Your task to perform on an android device: Go to display settings Image 0: 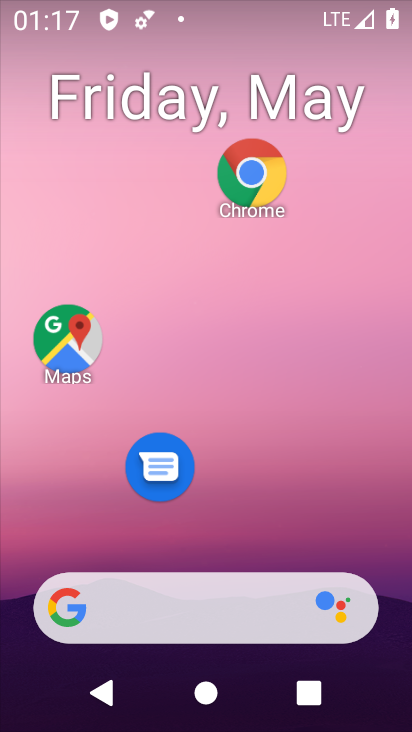
Step 0: drag from (262, 648) to (301, 112)
Your task to perform on an android device: Go to display settings Image 1: 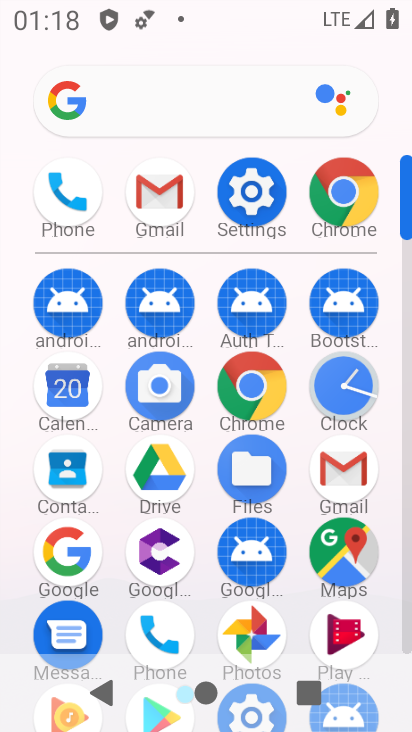
Step 1: click (250, 210)
Your task to perform on an android device: Go to display settings Image 2: 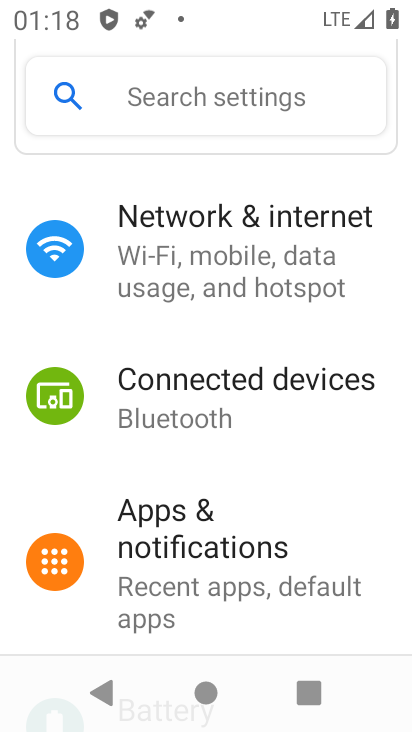
Step 2: drag from (257, 479) to (280, 301)
Your task to perform on an android device: Go to display settings Image 3: 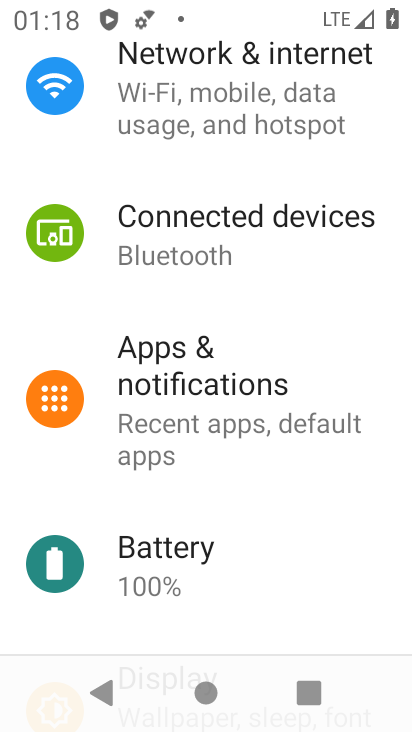
Step 3: drag from (219, 515) to (242, 336)
Your task to perform on an android device: Go to display settings Image 4: 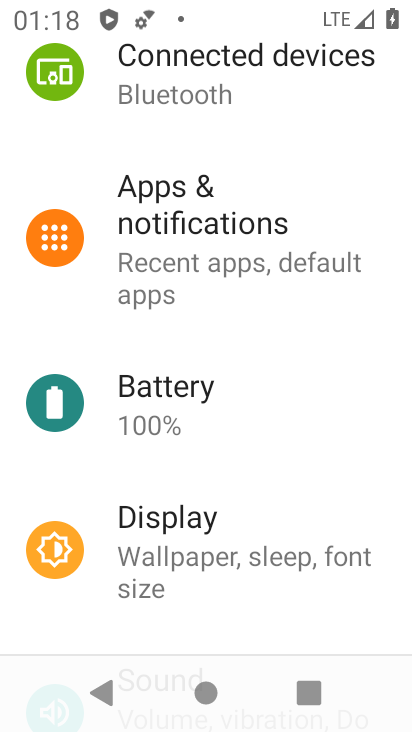
Step 4: click (199, 546)
Your task to perform on an android device: Go to display settings Image 5: 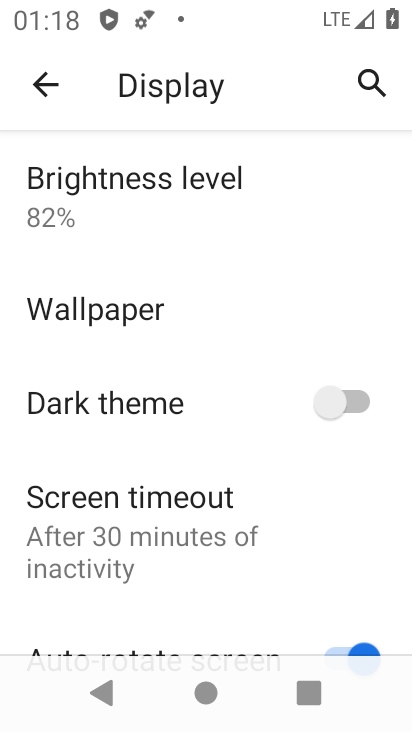
Step 5: task complete